Your task to perform on an android device: see sites visited before in the chrome app Image 0: 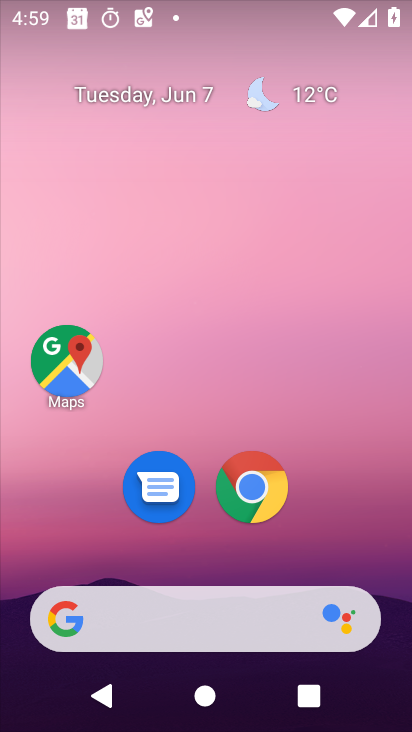
Step 0: click (263, 484)
Your task to perform on an android device: see sites visited before in the chrome app Image 1: 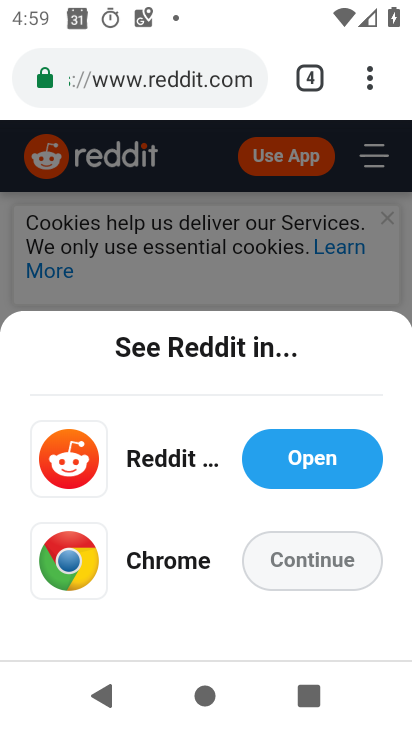
Step 1: task complete